Your task to perform on an android device: turn off smart reply in the gmail app Image 0: 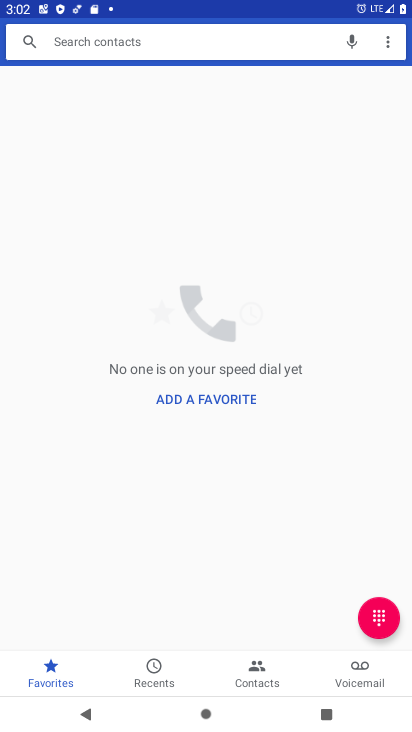
Step 0: press home button
Your task to perform on an android device: turn off smart reply in the gmail app Image 1: 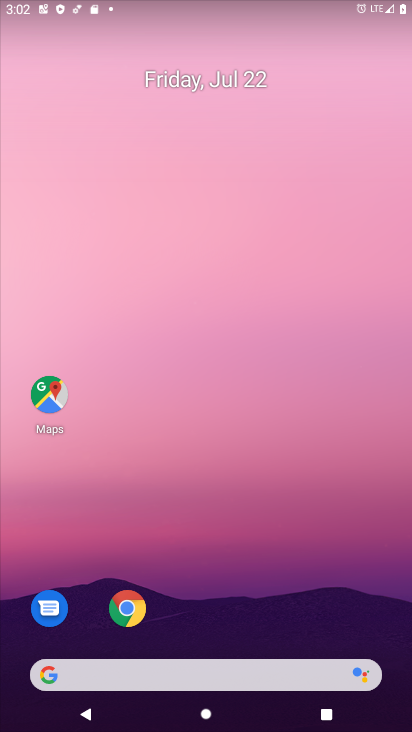
Step 1: drag from (344, 588) to (289, 197)
Your task to perform on an android device: turn off smart reply in the gmail app Image 2: 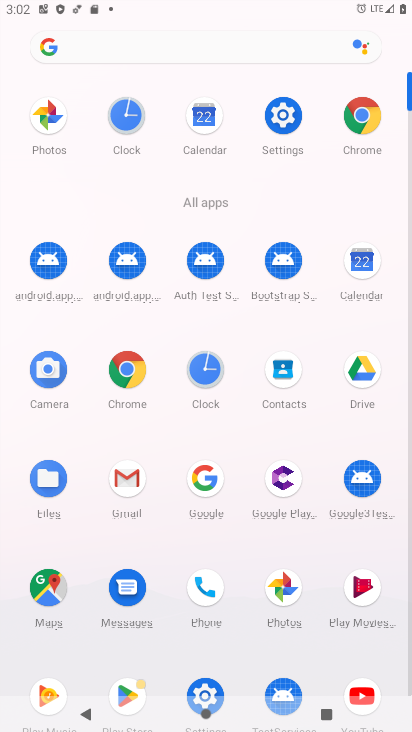
Step 2: click (130, 483)
Your task to perform on an android device: turn off smart reply in the gmail app Image 3: 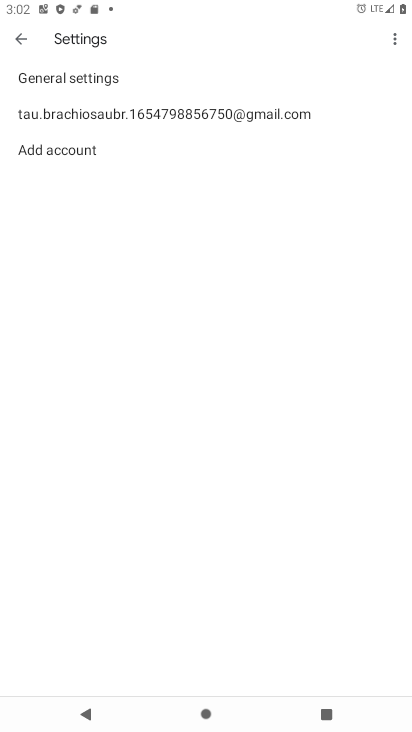
Step 3: click (114, 106)
Your task to perform on an android device: turn off smart reply in the gmail app Image 4: 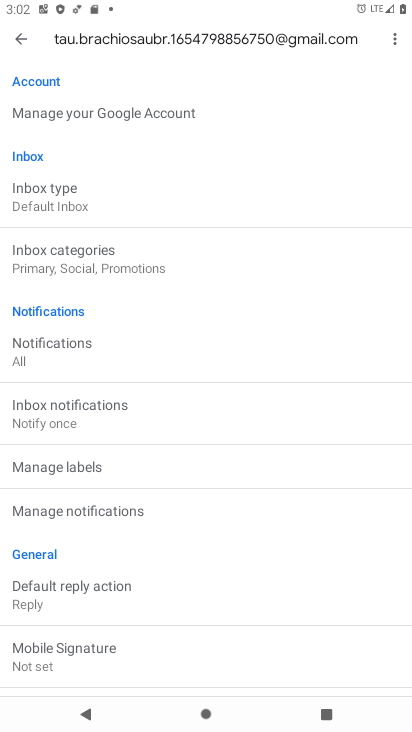
Step 4: drag from (267, 515) to (203, 249)
Your task to perform on an android device: turn off smart reply in the gmail app Image 5: 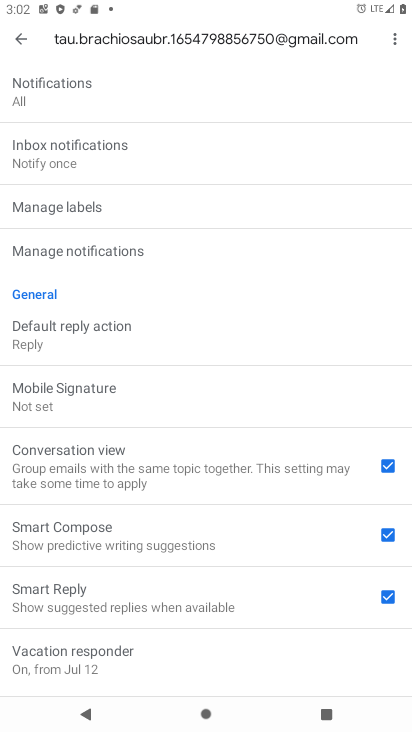
Step 5: click (388, 597)
Your task to perform on an android device: turn off smart reply in the gmail app Image 6: 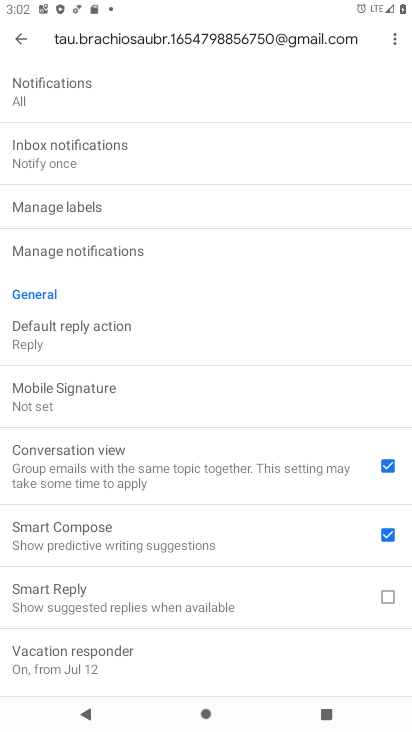
Step 6: task complete